Your task to perform on an android device: Find coffee shops on Maps Image 0: 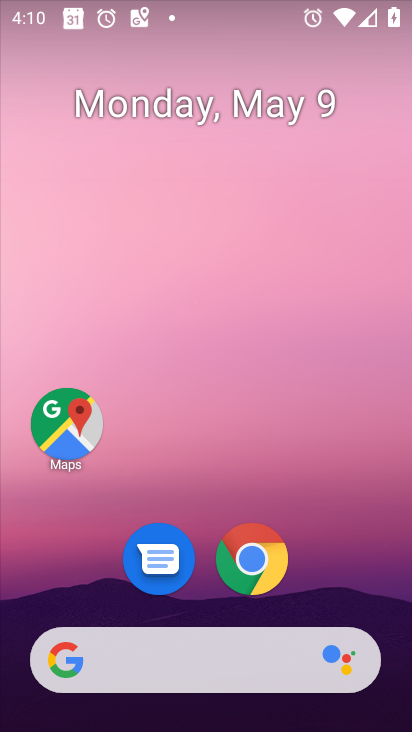
Step 0: drag from (216, 709) to (222, 95)
Your task to perform on an android device: Find coffee shops on Maps Image 1: 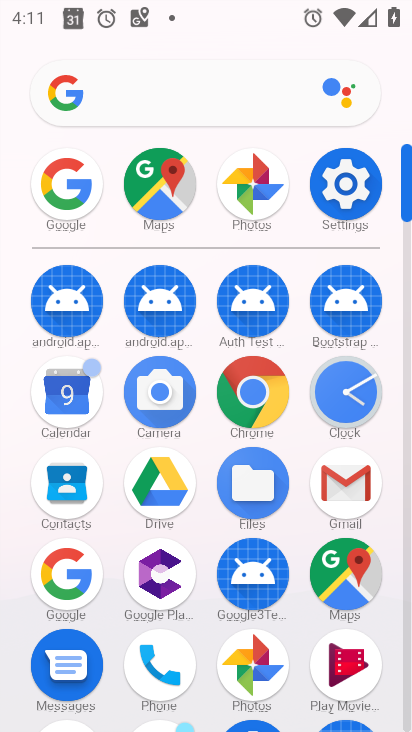
Step 1: click (343, 565)
Your task to perform on an android device: Find coffee shops on Maps Image 2: 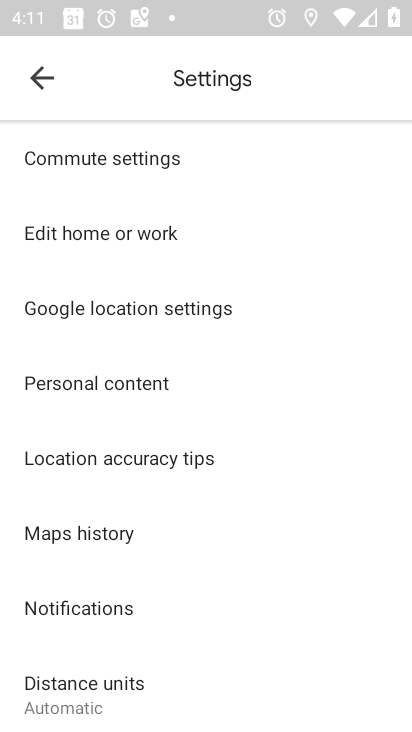
Step 2: click (41, 72)
Your task to perform on an android device: Find coffee shops on Maps Image 3: 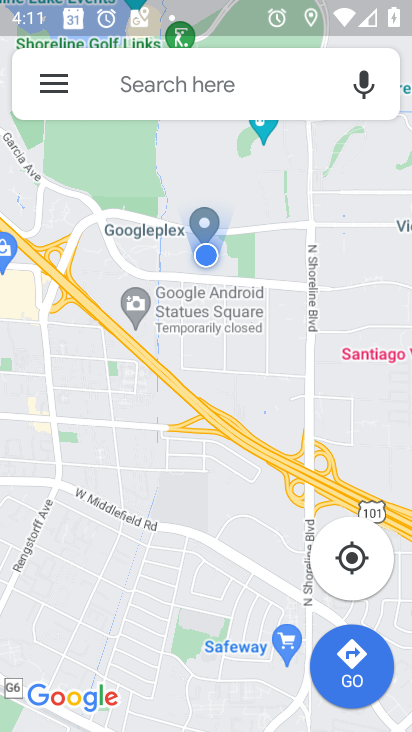
Step 3: click (181, 78)
Your task to perform on an android device: Find coffee shops on Maps Image 4: 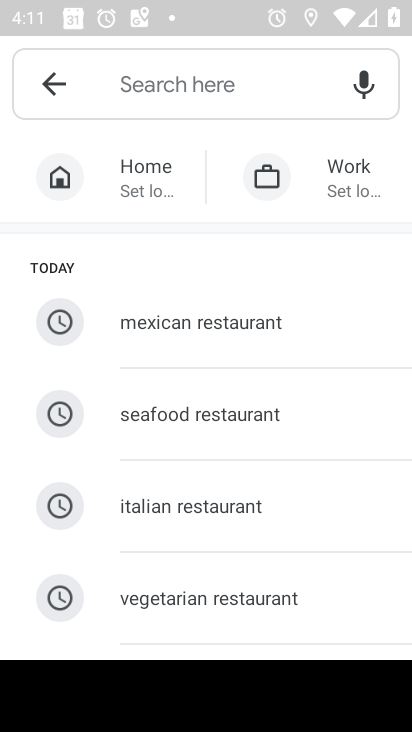
Step 4: type "Coffee shops"
Your task to perform on an android device: Find coffee shops on Maps Image 5: 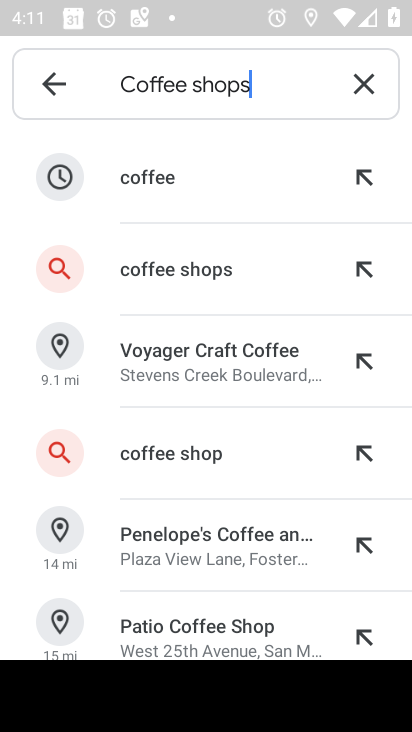
Step 5: click (172, 270)
Your task to perform on an android device: Find coffee shops on Maps Image 6: 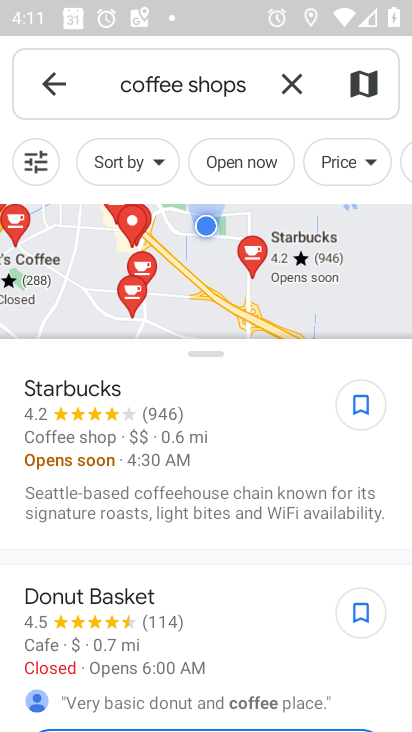
Step 6: task complete